Your task to perform on an android device: What is the news today? Image 0: 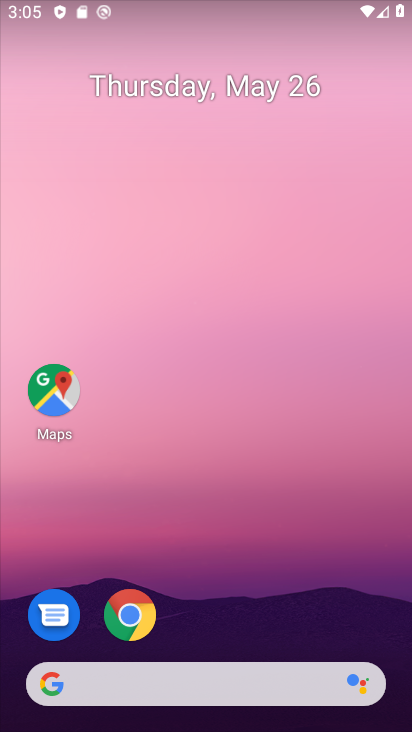
Step 0: drag from (7, 227) to (401, 391)
Your task to perform on an android device: What is the news today? Image 1: 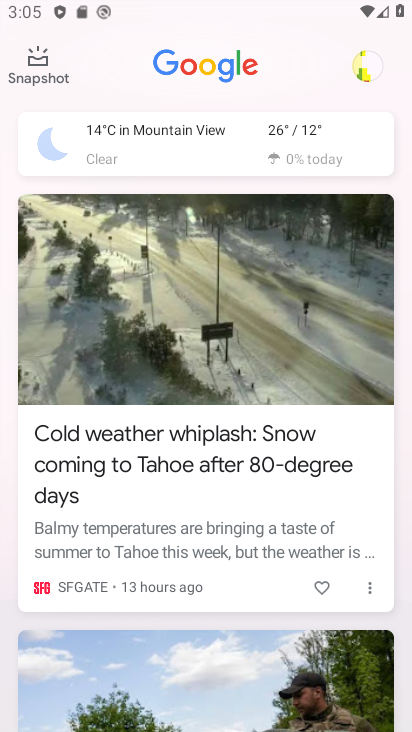
Step 1: task complete